Your task to perform on an android device: Go to notification settings Image 0: 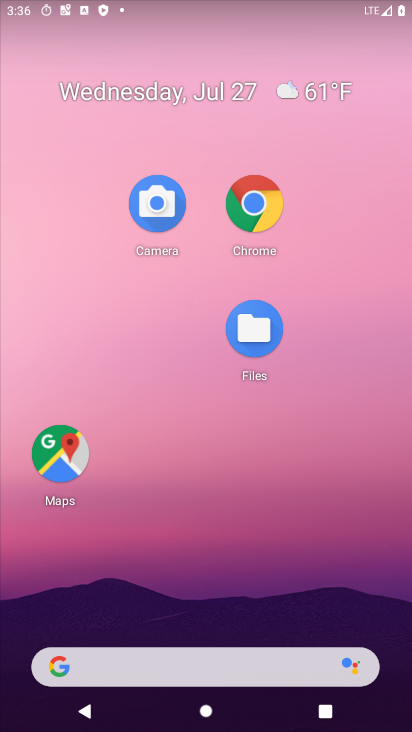
Step 0: drag from (205, 613) to (315, 145)
Your task to perform on an android device: Go to notification settings Image 1: 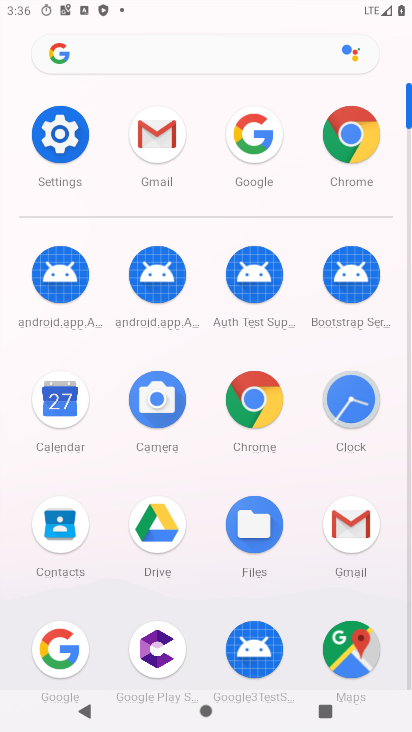
Step 1: click (35, 150)
Your task to perform on an android device: Go to notification settings Image 2: 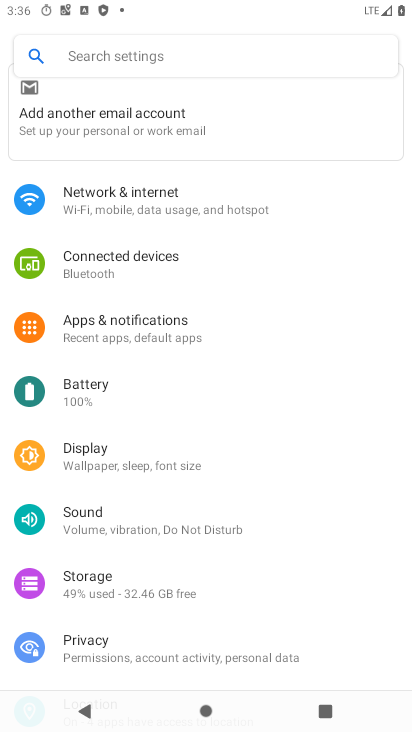
Step 2: click (170, 351)
Your task to perform on an android device: Go to notification settings Image 3: 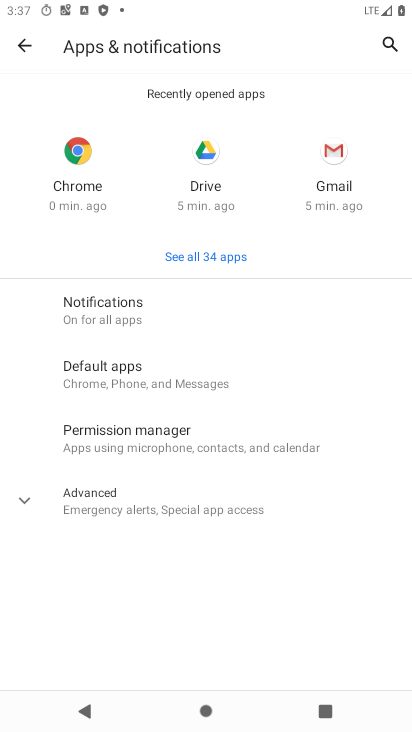
Step 3: click (95, 299)
Your task to perform on an android device: Go to notification settings Image 4: 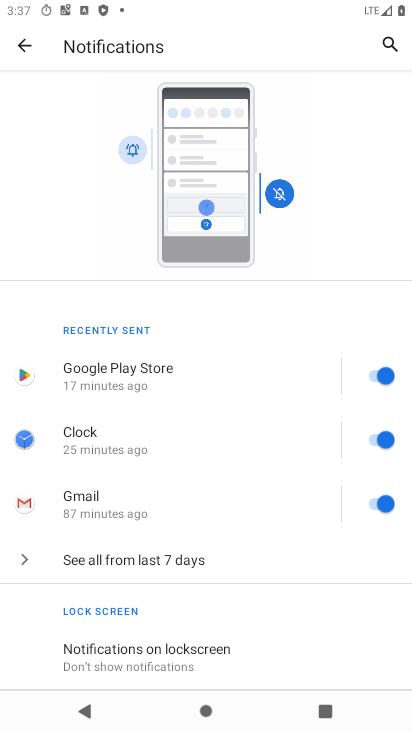
Step 4: task complete